Your task to perform on an android device: What time is it in Paris? Image 0: 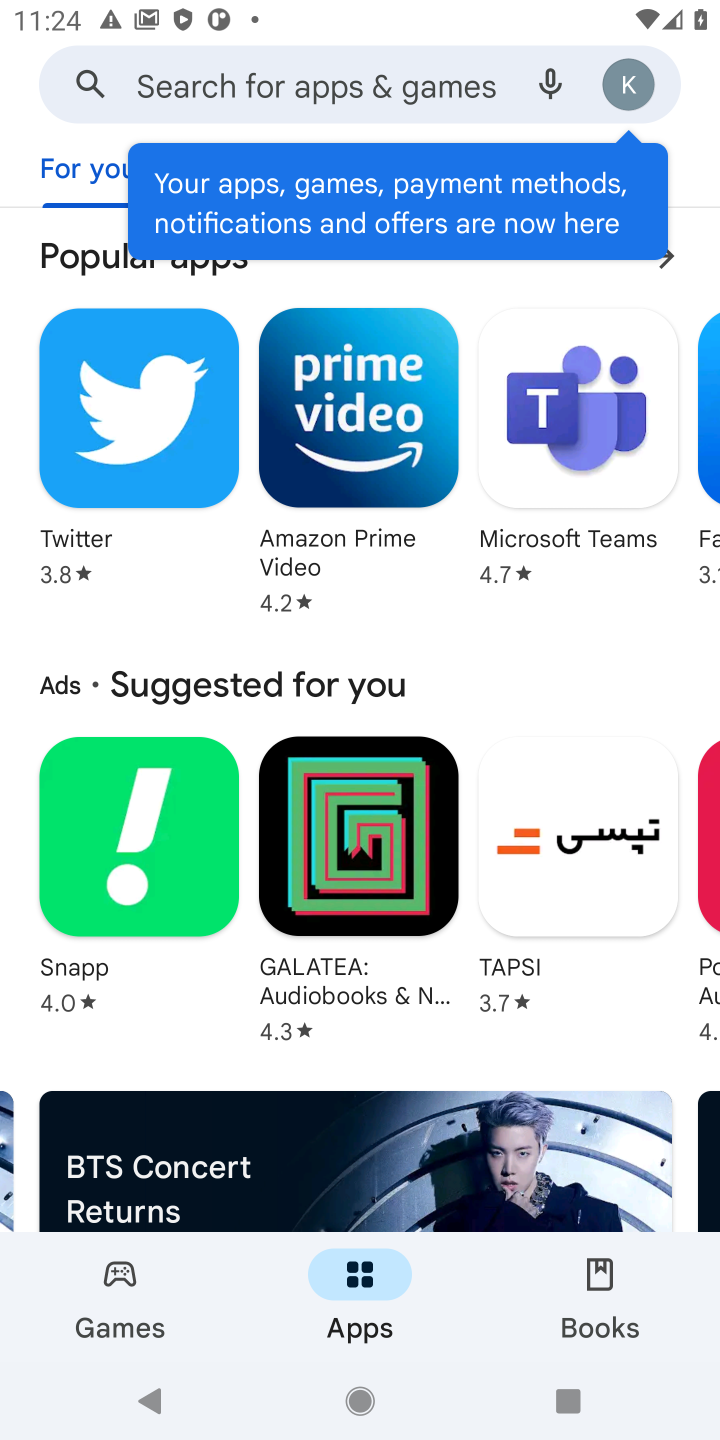
Step 0: press home button
Your task to perform on an android device: What time is it in Paris? Image 1: 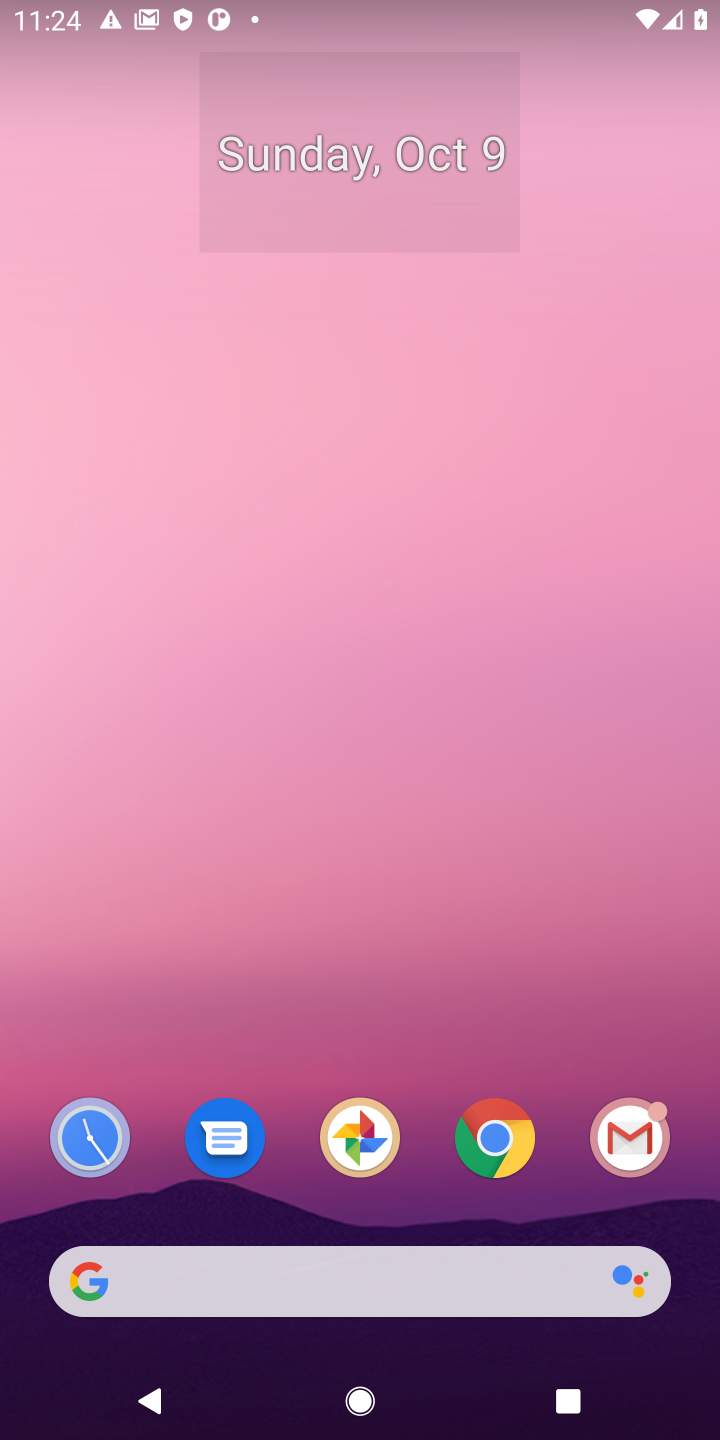
Step 1: click (502, 1148)
Your task to perform on an android device: What time is it in Paris? Image 2: 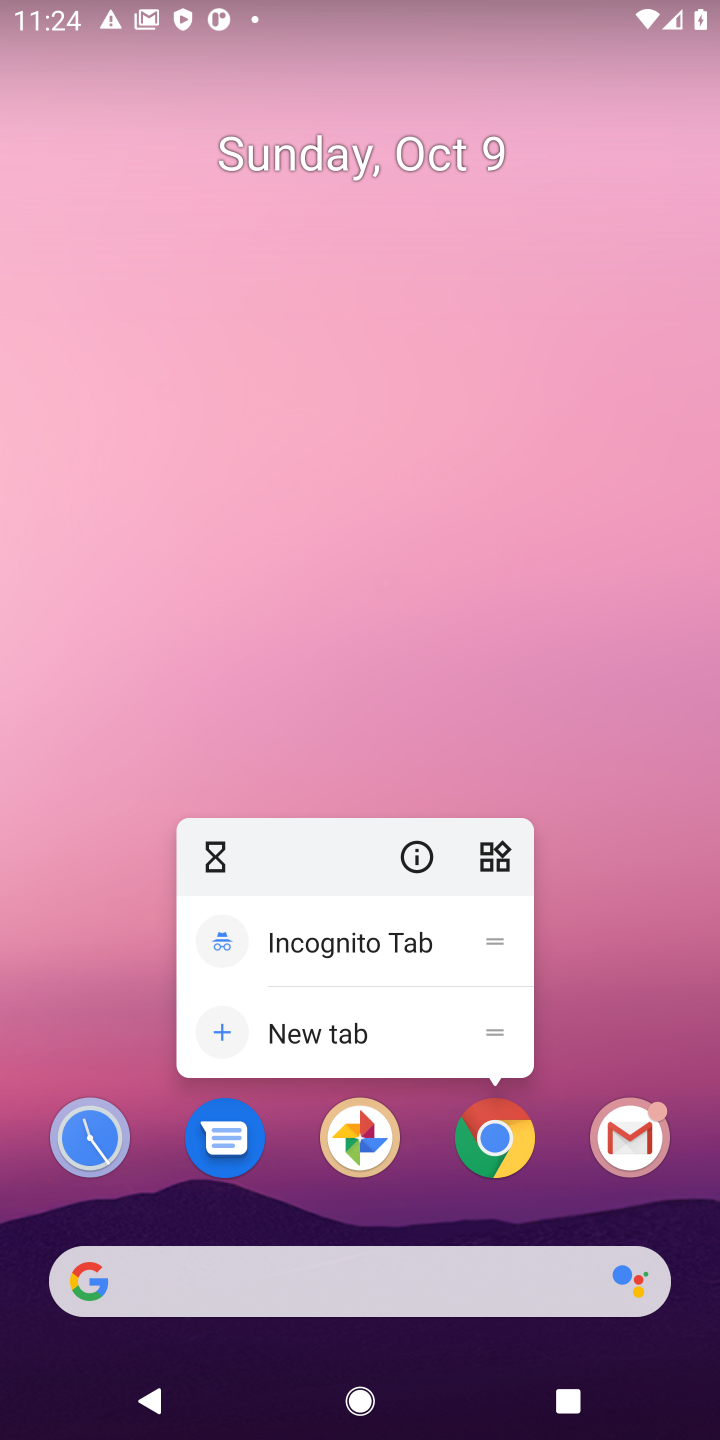
Step 2: click (500, 1148)
Your task to perform on an android device: What time is it in Paris? Image 3: 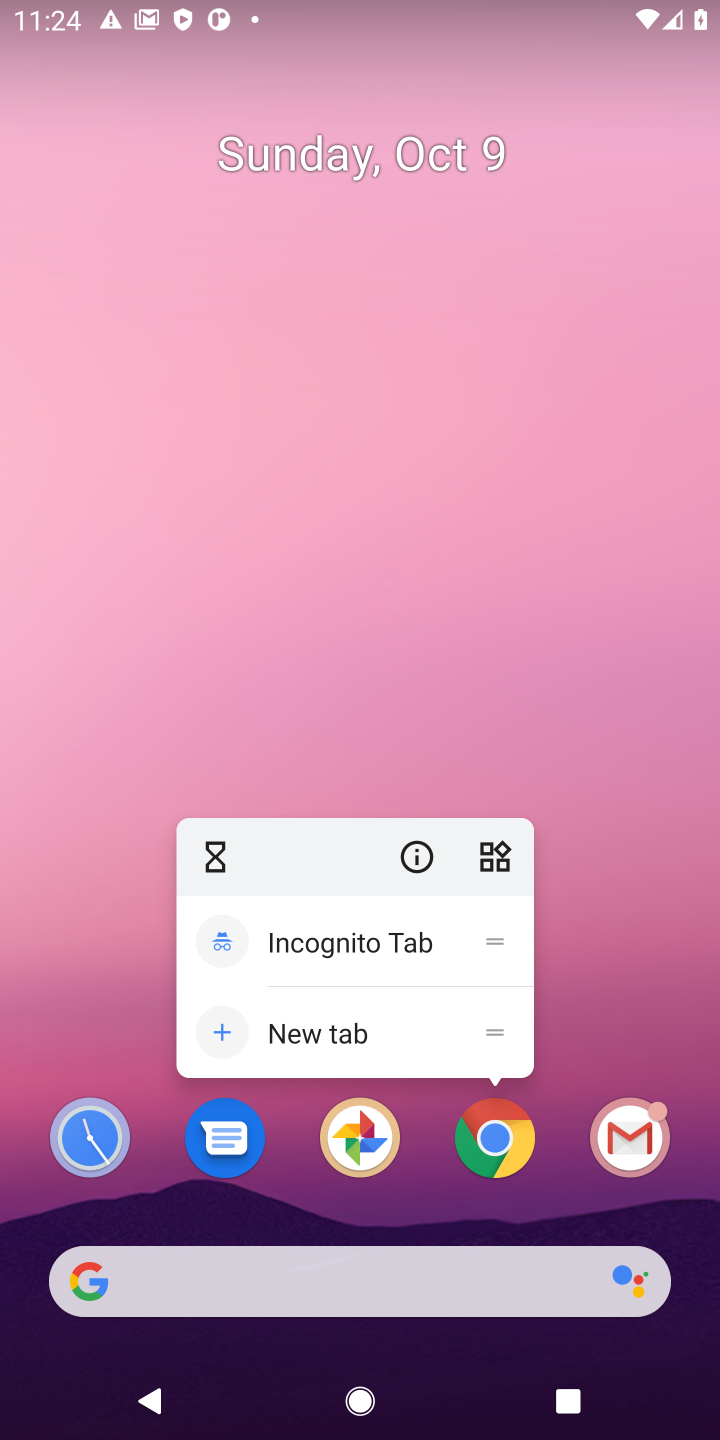
Step 3: click (500, 1148)
Your task to perform on an android device: What time is it in Paris? Image 4: 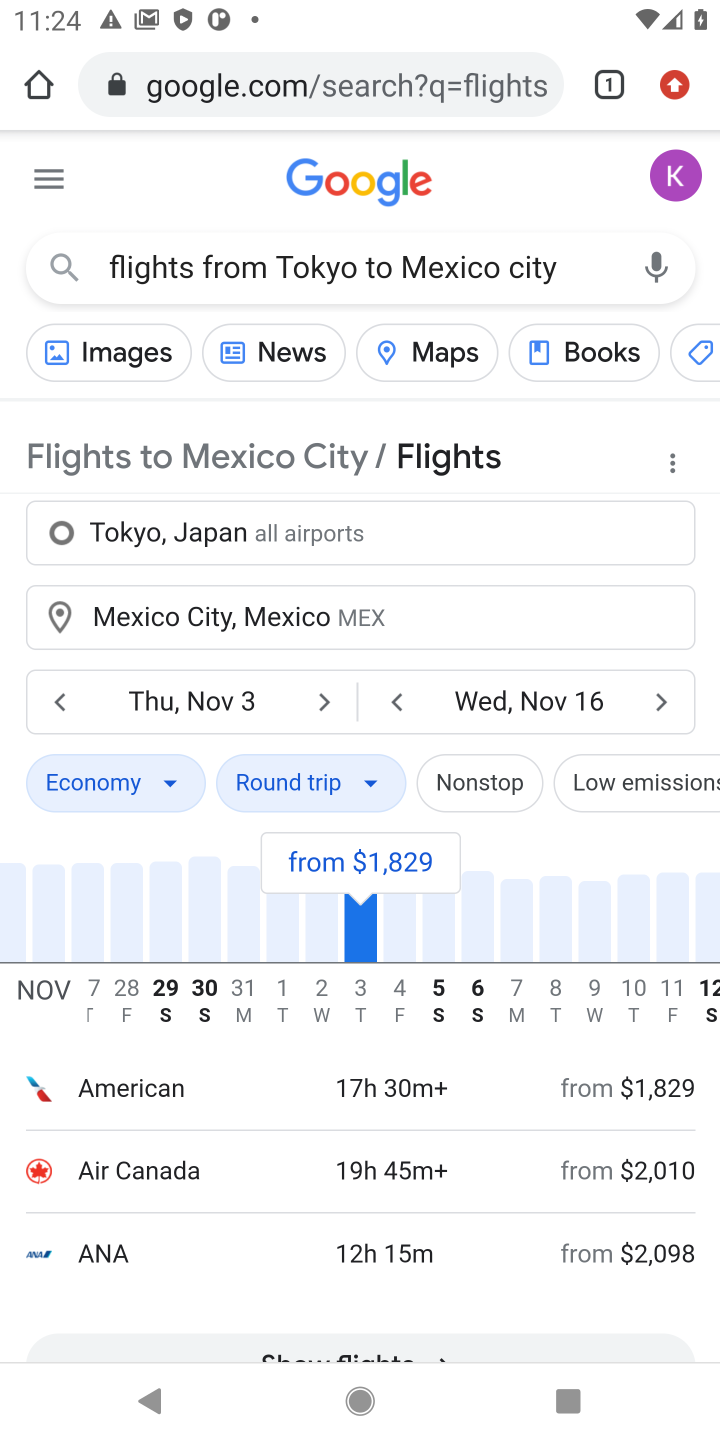
Step 4: click (590, 262)
Your task to perform on an android device: What time is it in Paris? Image 5: 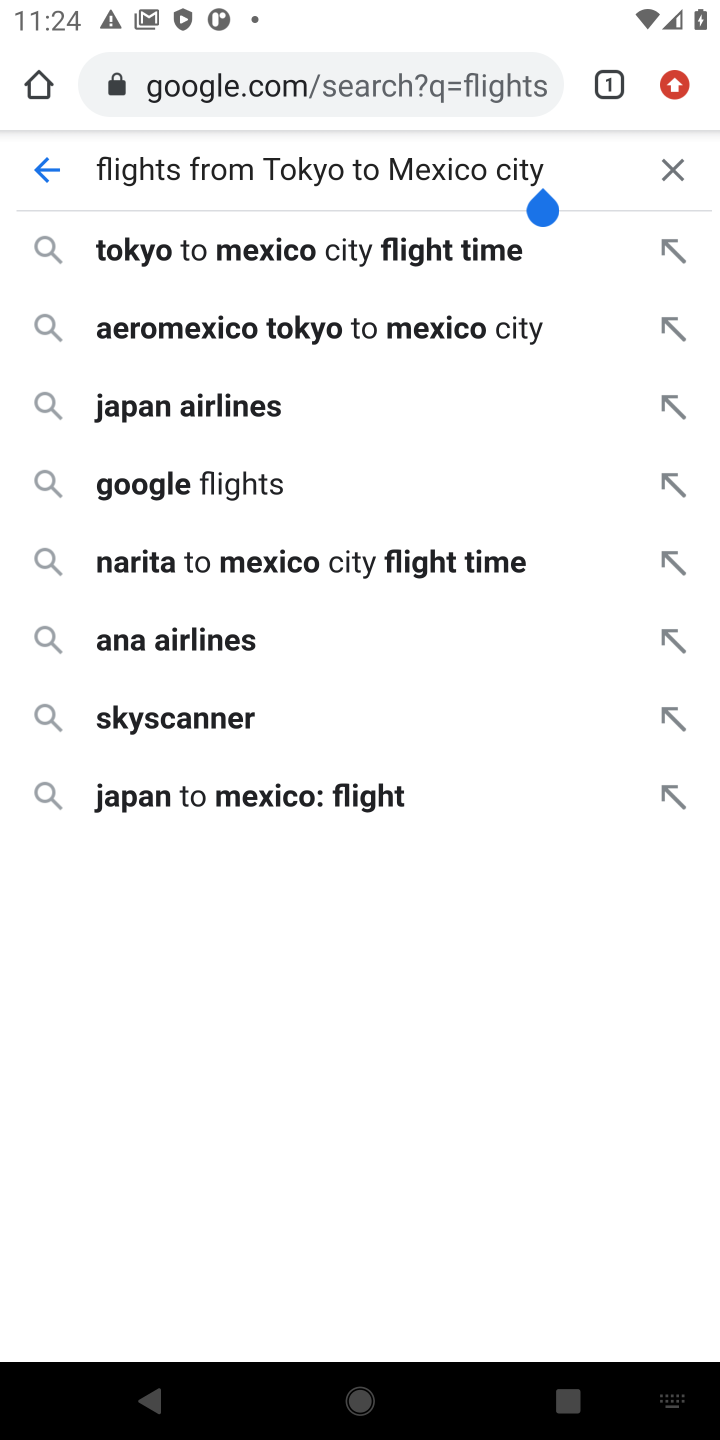
Step 5: click (679, 171)
Your task to perform on an android device: What time is it in Paris? Image 6: 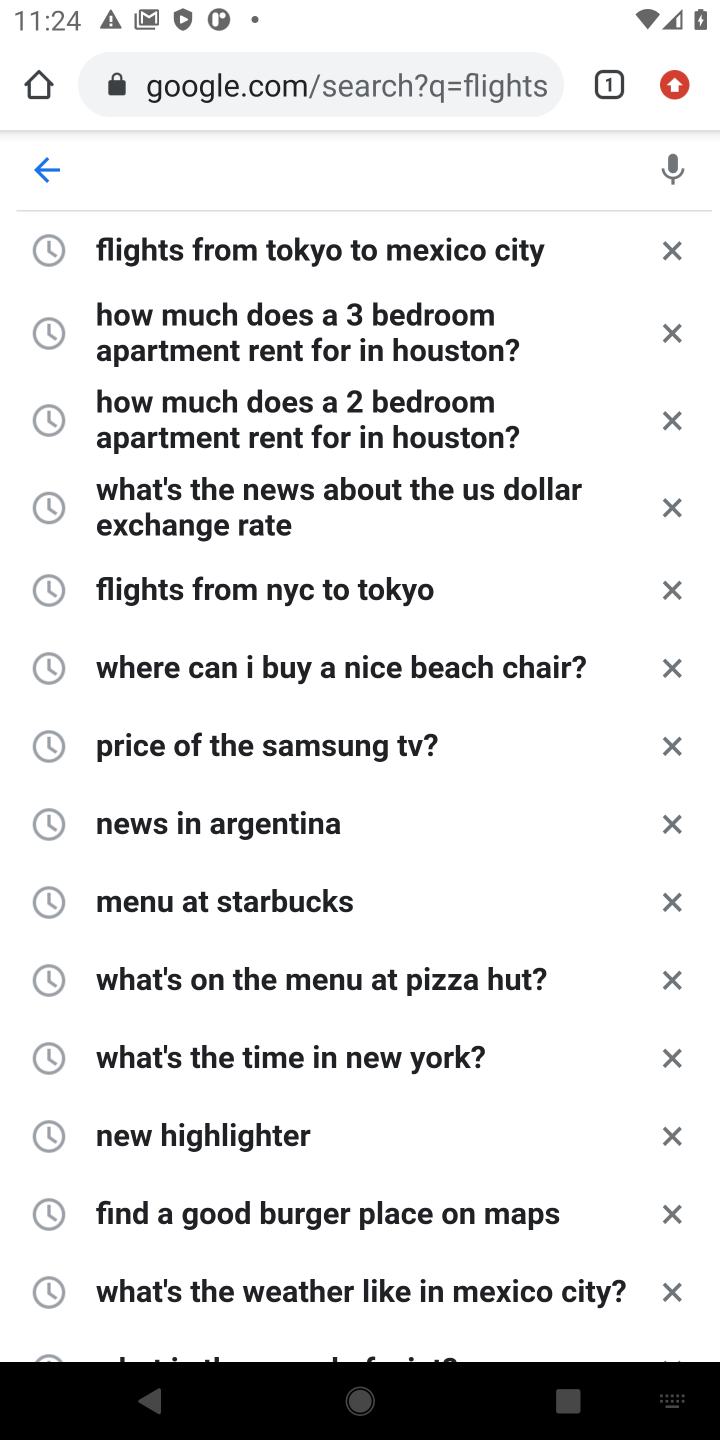
Step 6: type "What time is it in Paris?"
Your task to perform on an android device: What time is it in Paris? Image 7: 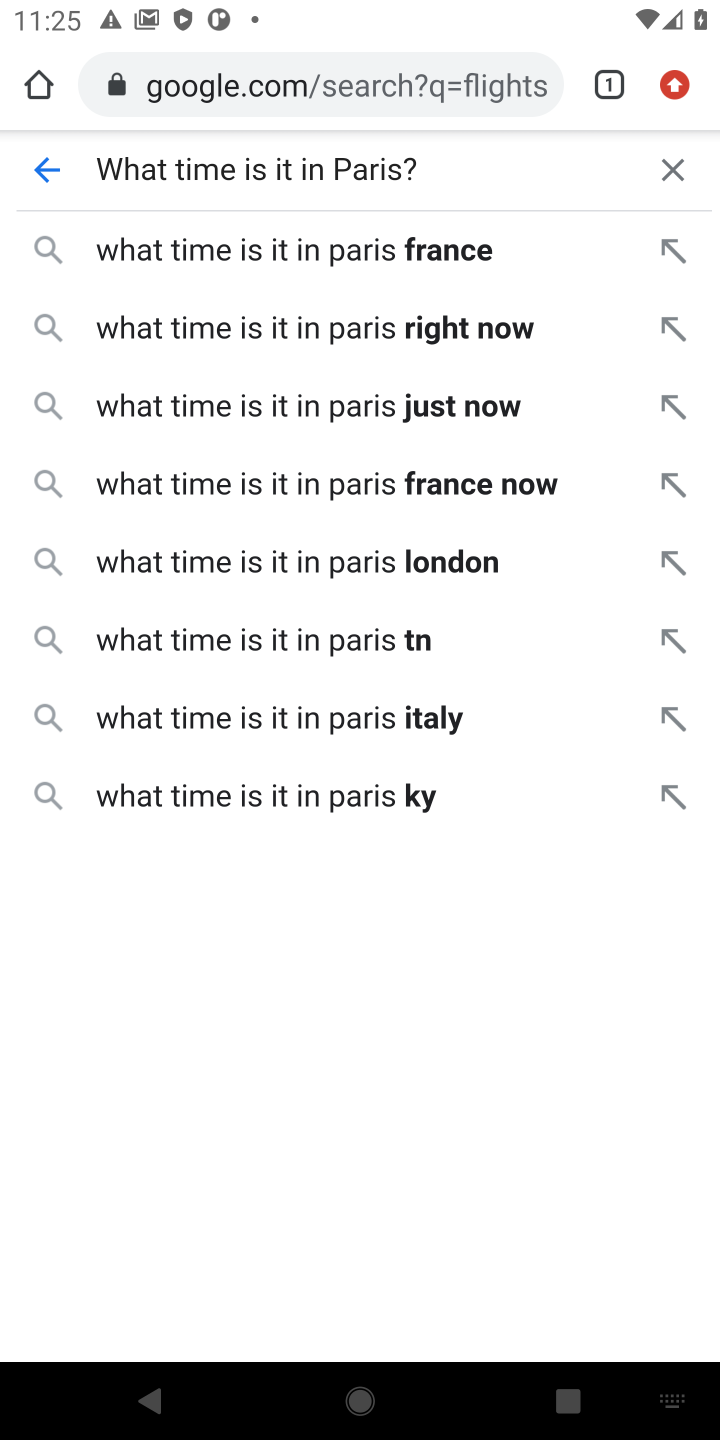
Step 7: press enter
Your task to perform on an android device: What time is it in Paris? Image 8: 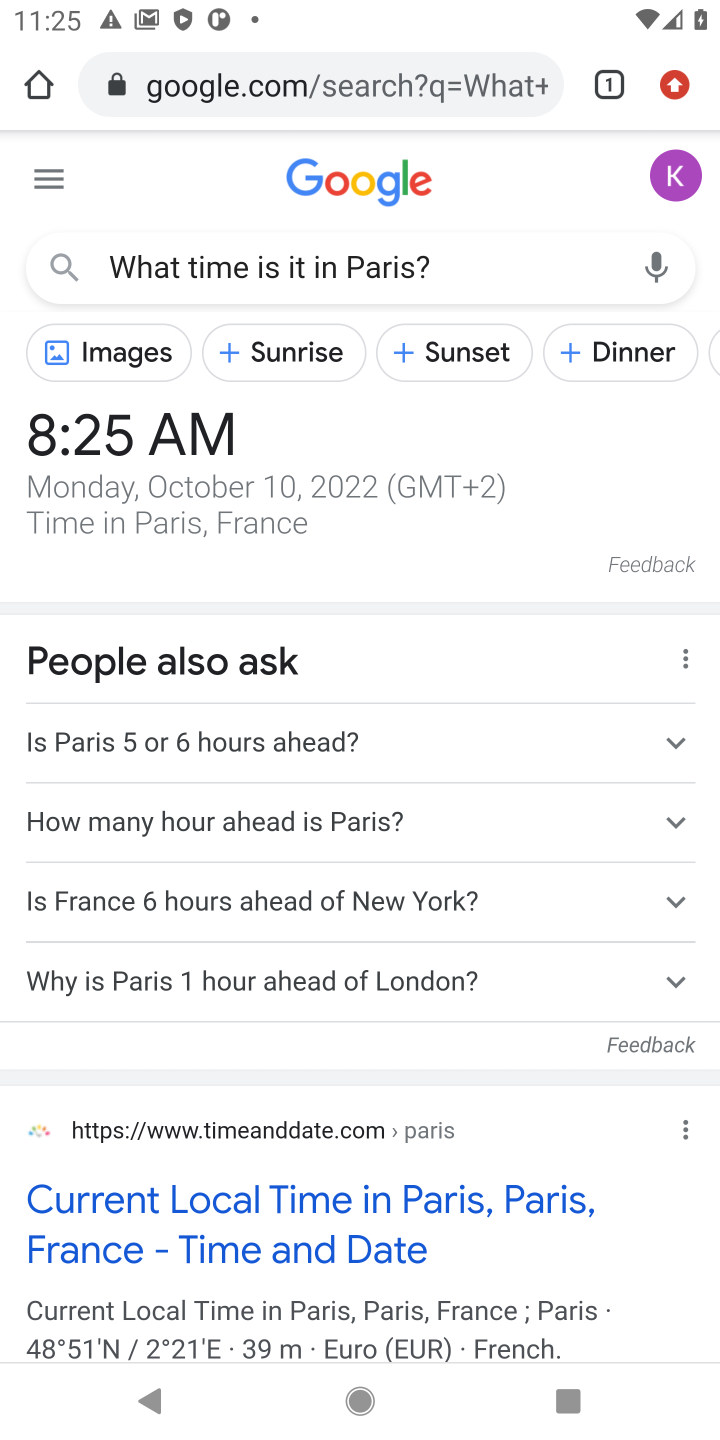
Step 8: task complete